Your task to perform on an android device: Search for "lg ultragear" on newegg.com, select the first entry, add it to the cart, then select checkout. Image 0: 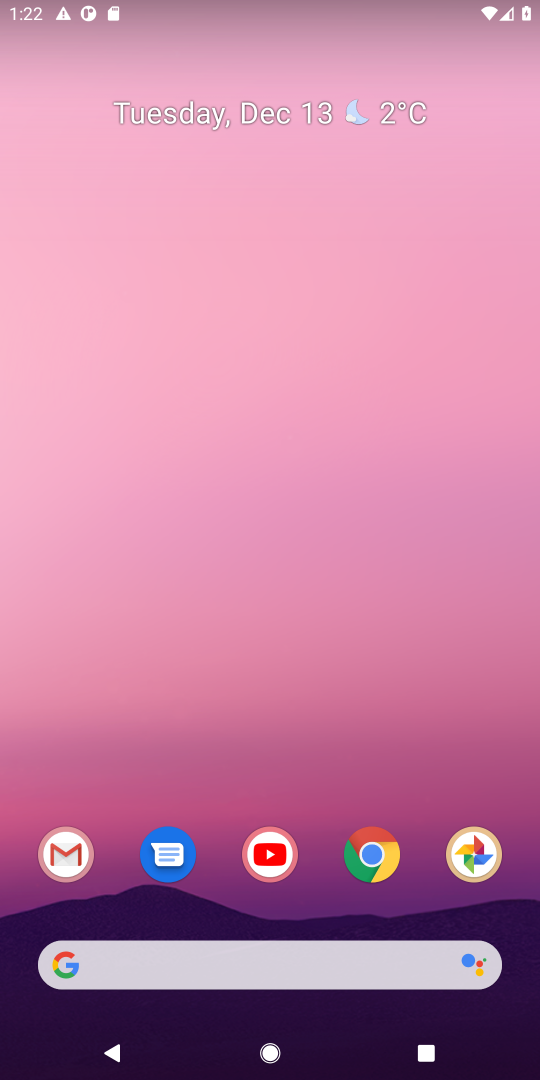
Step 0: click (320, 959)
Your task to perform on an android device: Search for "lg ultragear" on newegg.com, select the first entry, add it to the cart, then select checkout. Image 1: 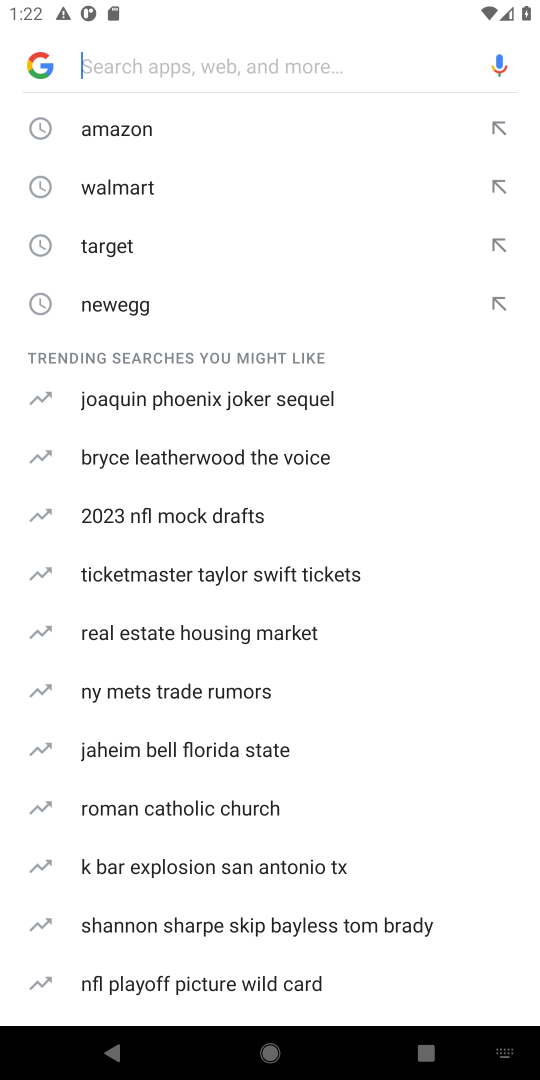
Step 1: click (177, 309)
Your task to perform on an android device: Search for "lg ultragear" on newegg.com, select the first entry, add it to the cart, then select checkout. Image 2: 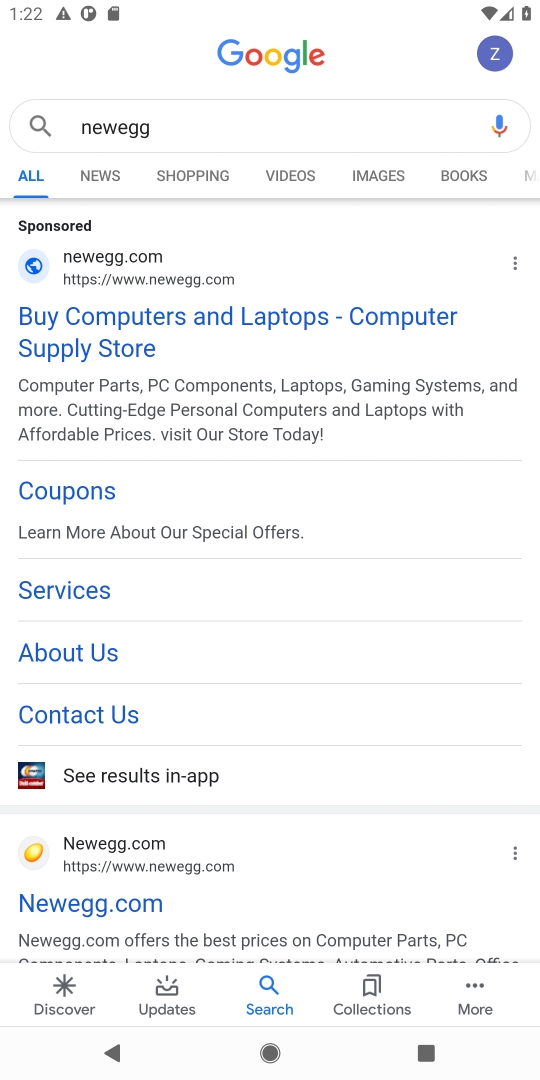
Step 2: click (146, 304)
Your task to perform on an android device: Search for "lg ultragear" on newegg.com, select the first entry, add it to the cart, then select checkout. Image 3: 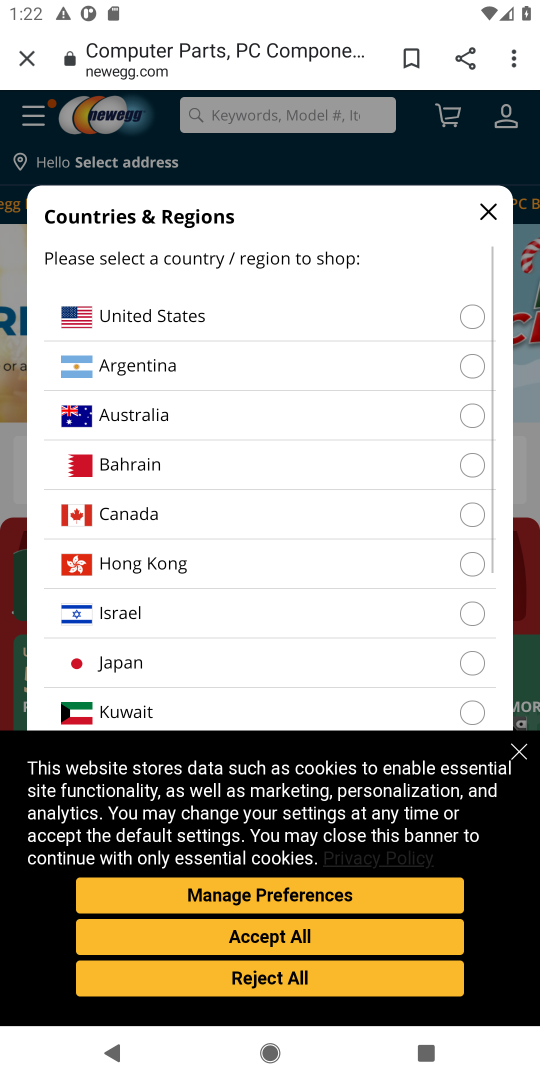
Step 3: click (123, 303)
Your task to perform on an android device: Search for "lg ultragear" on newegg.com, select the first entry, add it to the cart, then select checkout. Image 4: 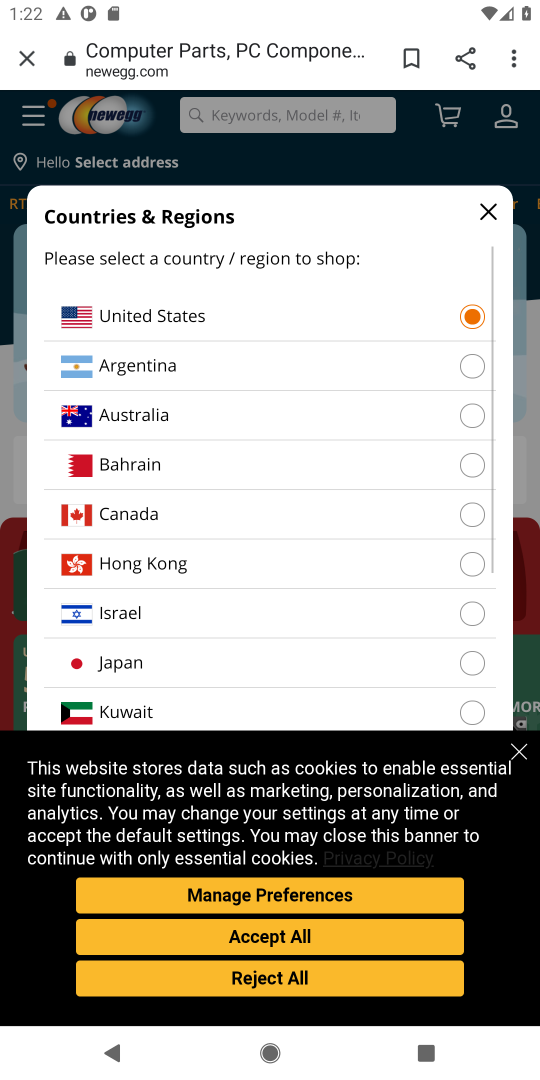
Step 4: click (372, 947)
Your task to perform on an android device: Search for "lg ultragear" on newegg.com, select the first entry, add it to the cart, then select checkout. Image 5: 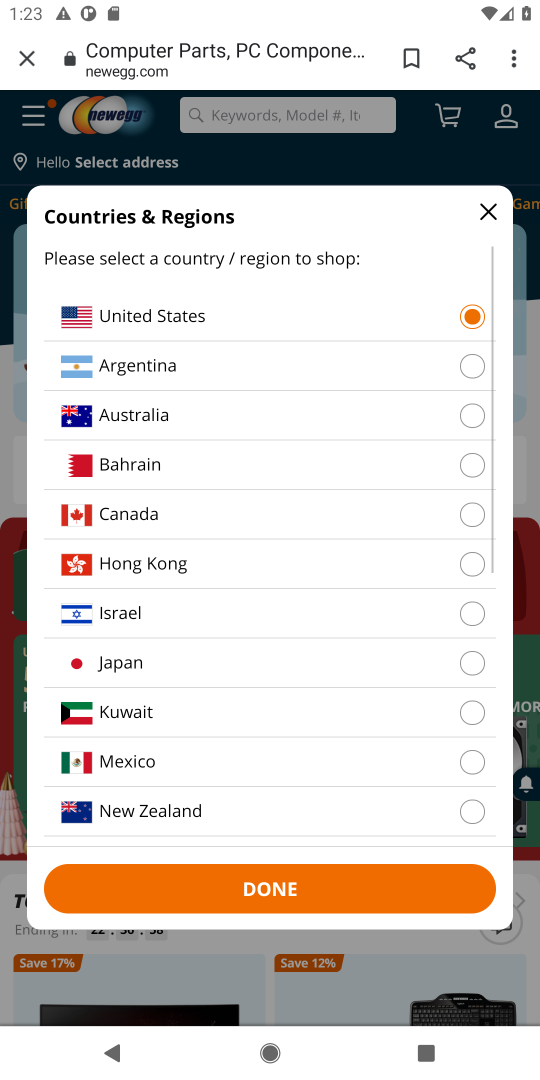
Step 5: click (335, 869)
Your task to perform on an android device: Search for "lg ultragear" on newegg.com, select the first entry, add it to the cart, then select checkout. Image 6: 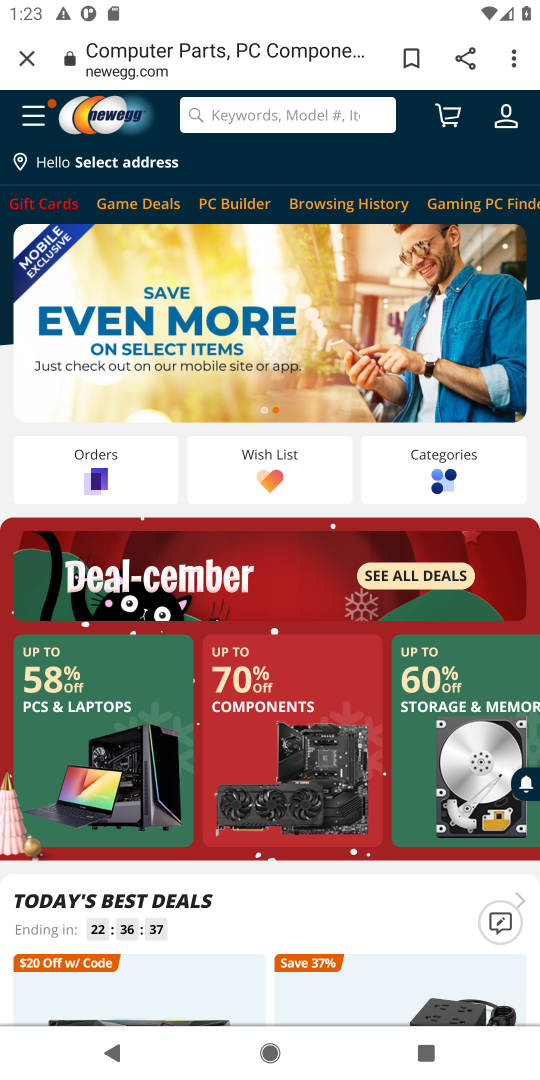
Step 6: click (243, 133)
Your task to perform on an android device: Search for "lg ultragear" on newegg.com, select the first entry, add it to the cart, then select checkout. Image 7: 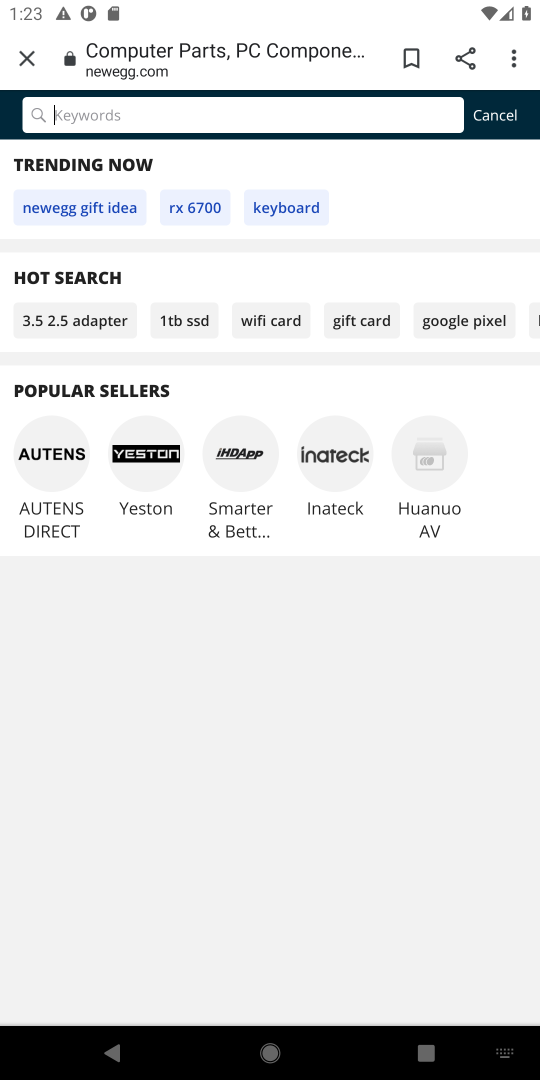
Step 7: type "lg ultragera"
Your task to perform on an android device: Search for "lg ultragear" on newegg.com, select the first entry, add it to the cart, then select checkout. Image 8: 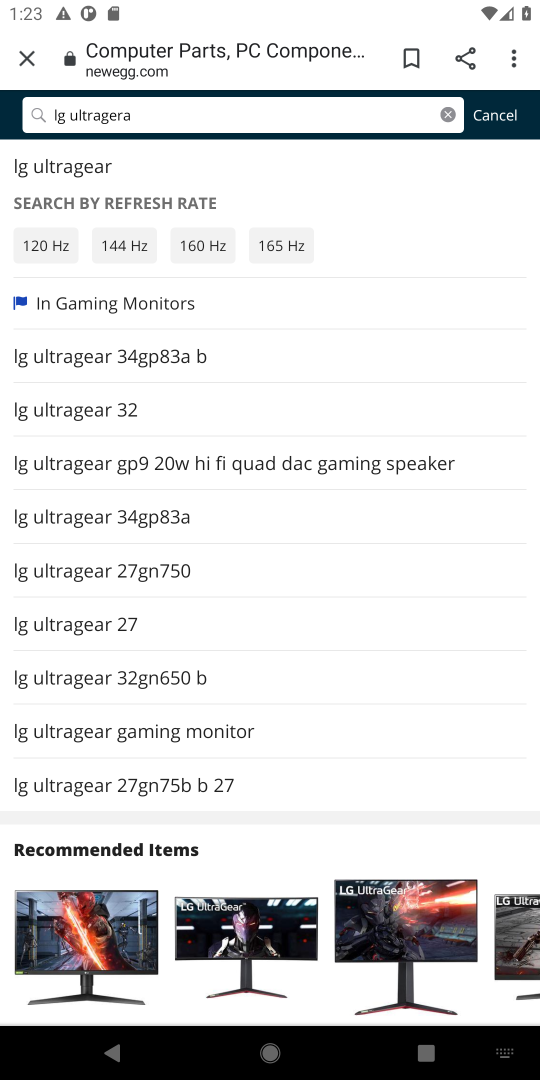
Step 8: click (82, 167)
Your task to perform on an android device: Search for "lg ultragear" on newegg.com, select the first entry, add it to the cart, then select checkout. Image 9: 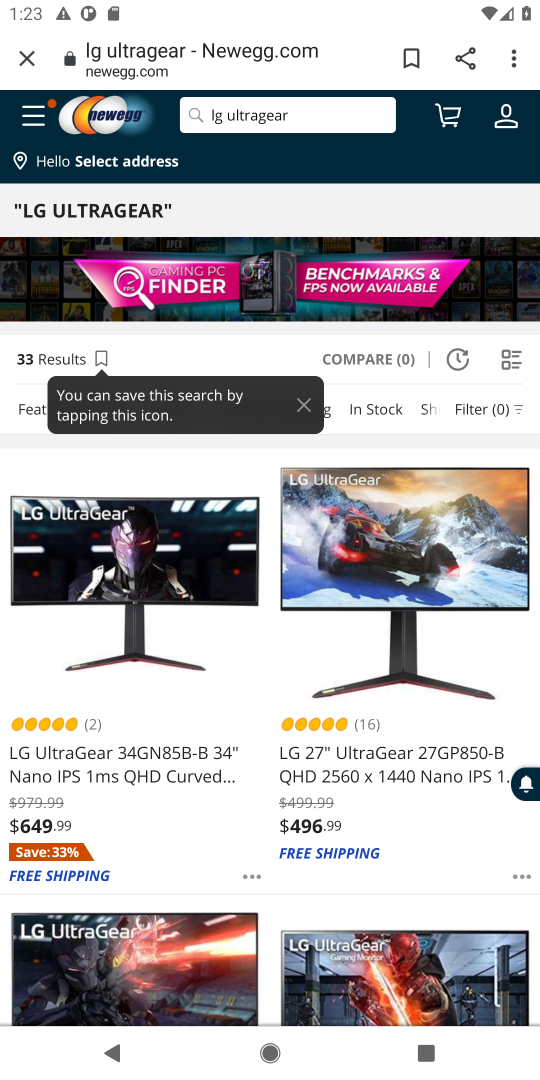
Step 9: click (142, 783)
Your task to perform on an android device: Search for "lg ultragear" on newegg.com, select the first entry, add it to the cart, then select checkout. Image 10: 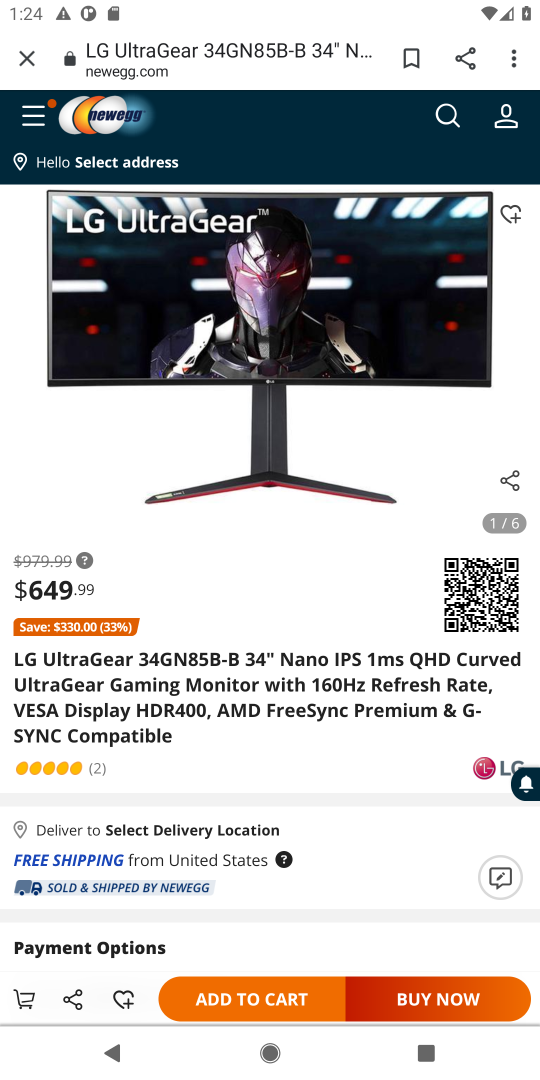
Step 10: click (284, 1010)
Your task to perform on an android device: Search for "lg ultragear" on newegg.com, select the first entry, add it to the cart, then select checkout. Image 11: 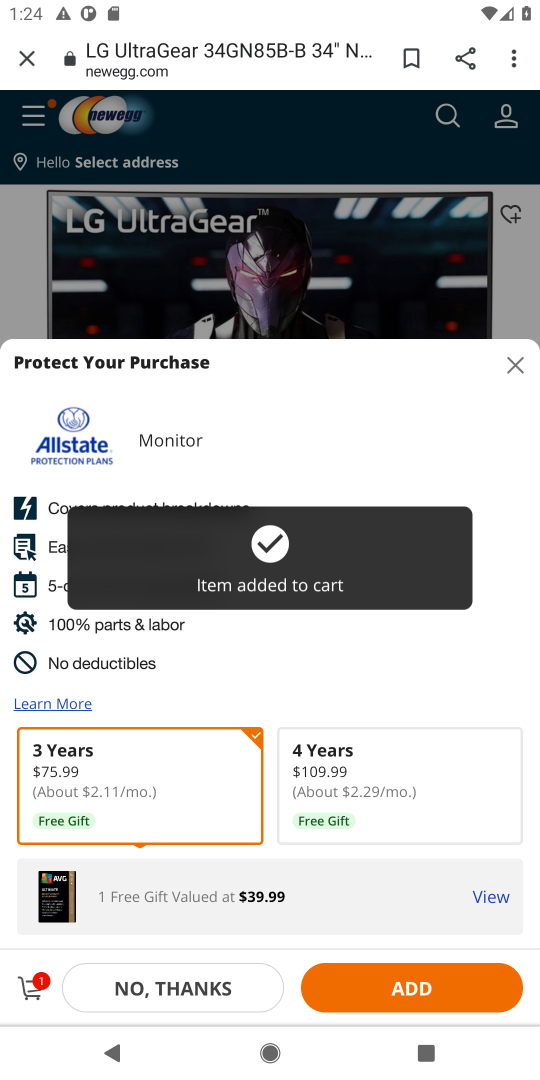
Step 11: task complete